Your task to perform on an android device: When is my next appointment? Image 0: 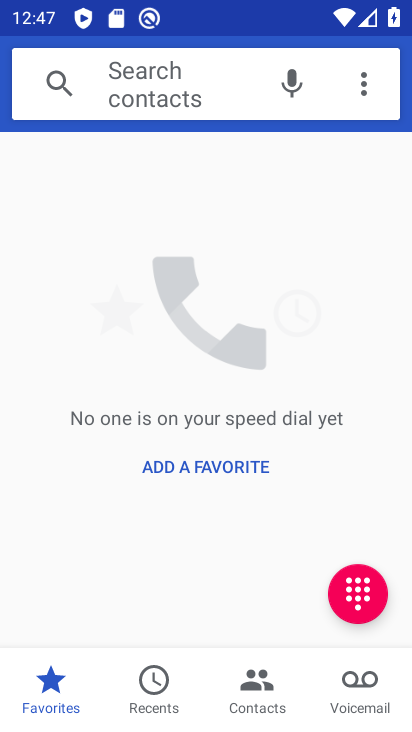
Step 0: press home button
Your task to perform on an android device: When is my next appointment? Image 1: 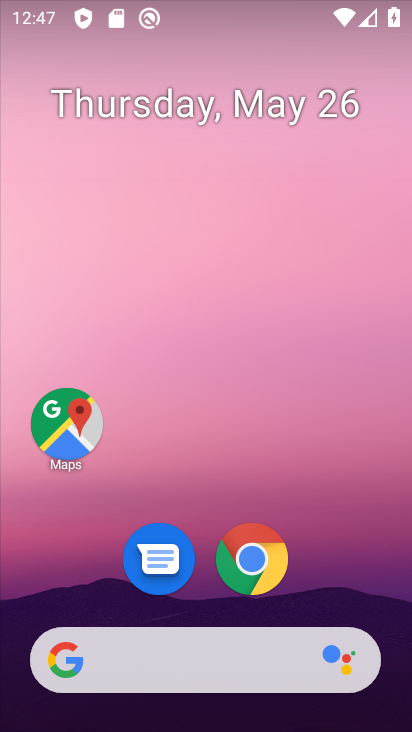
Step 1: drag from (183, 673) to (287, 174)
Your task to perform on an android device: When is my next appointment? Image 2: 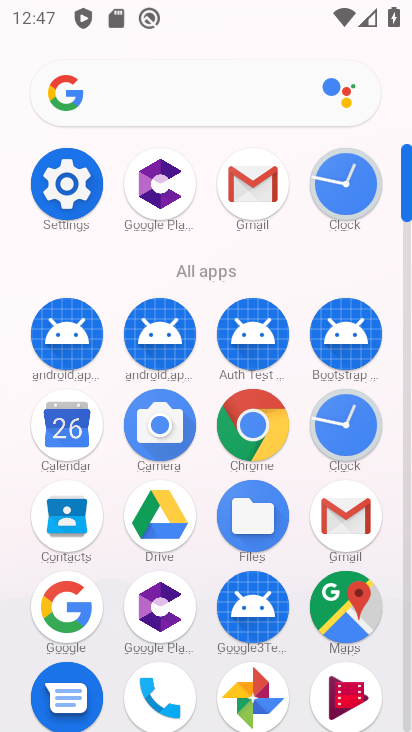
Step 2: click (75, 433)
Your task to perform on an android device: When is my next appointment? Image 3: 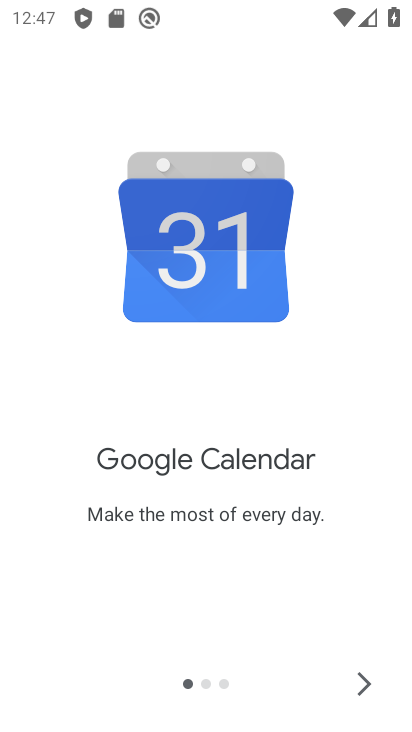
Step 3: click (358, 675)
Your task to perform on an android device: When is my next appointment? Image 4: 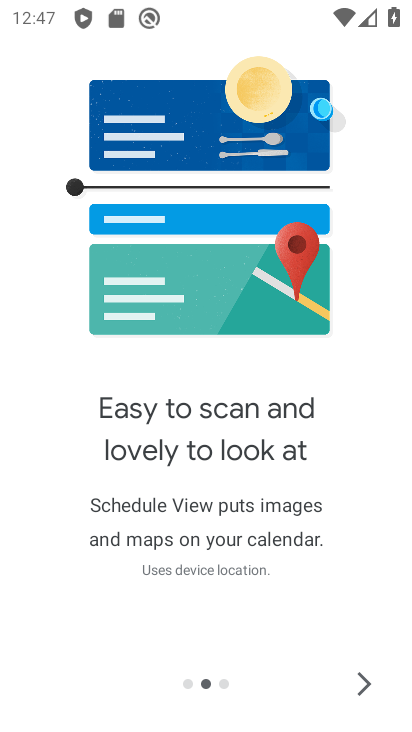
Step 4: click (358, 675)
Your task to perform on an android device: When is my next appointment? Image 5: 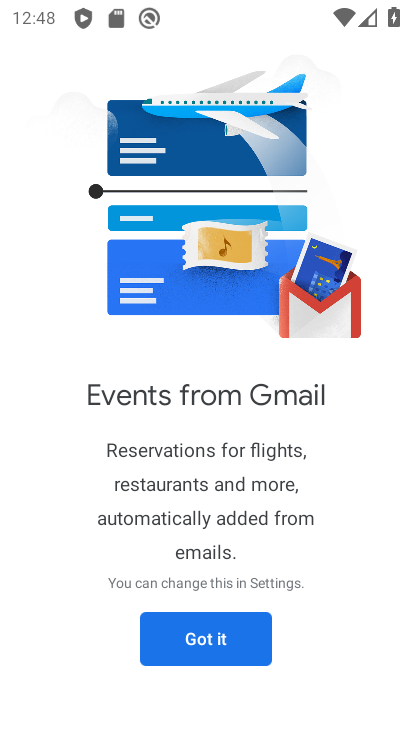
Step 5: click (219, 659)
Your task to perform on an android device: When is my next appointment? Image 6: 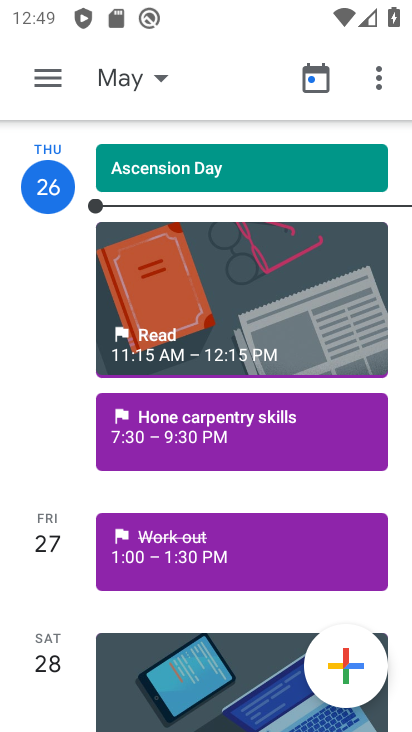
Step 6: click (251, 429)
Your task to perform on an android device: When is my next appointment? Image 7: 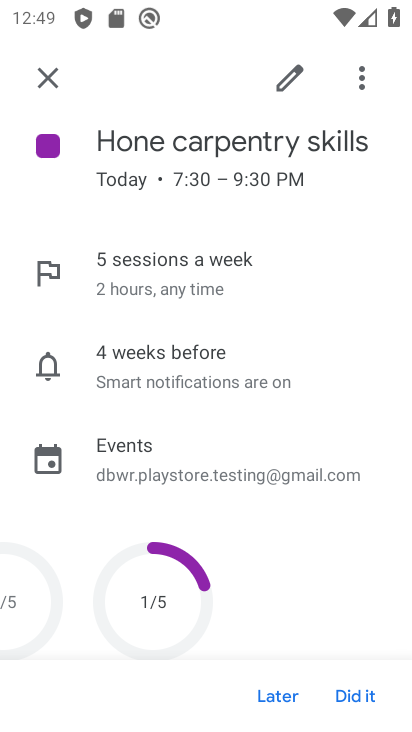
Step 7: task complete